Your task to perform on an android device: Open the stopwatch Image 0: 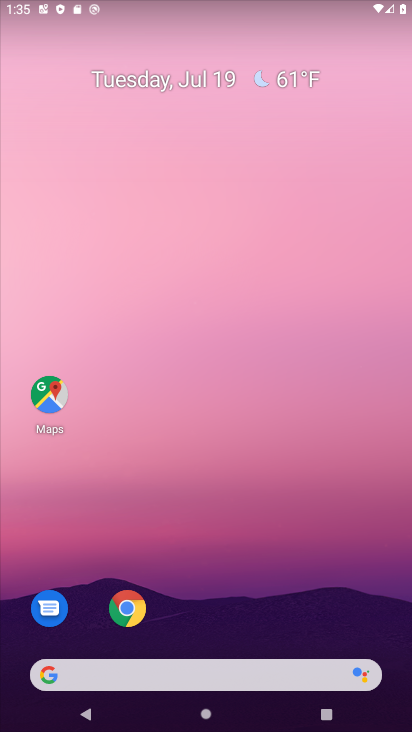
Step 0: drag from (283, 464) to (284, 77)
Your task to perform on an android device: Open the stopwatch Image 1: 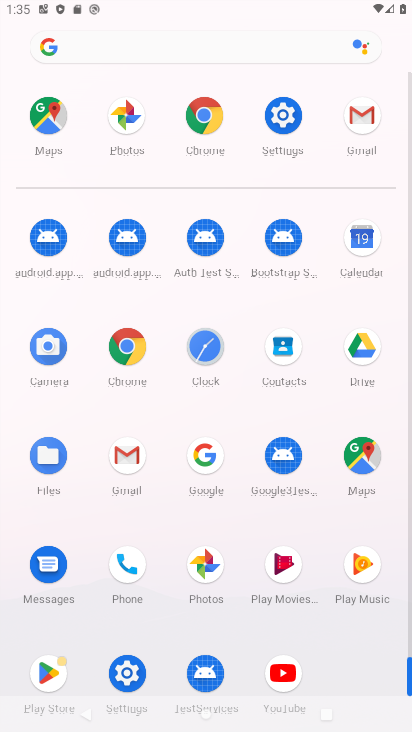
Step 1: click (200, 351)
Your task to perform on an android device: Open the stopwatch Image 2: 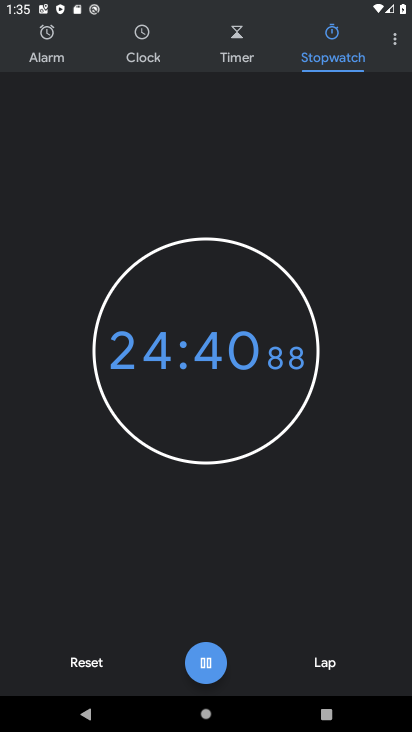
Step 2: task complete